Your task to perform on an android device: toggle pop-ups in chrome Image 0: 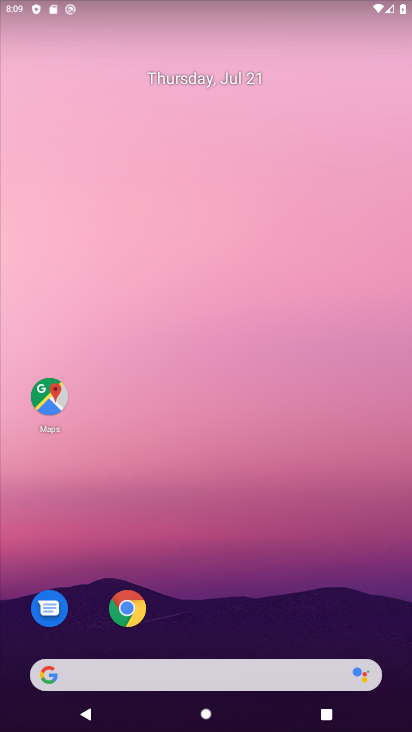
Step 0: drag from (89, 548) to (189, 178)
Your task to perform on an android device: toggle pop-ups in chrome Image 1: 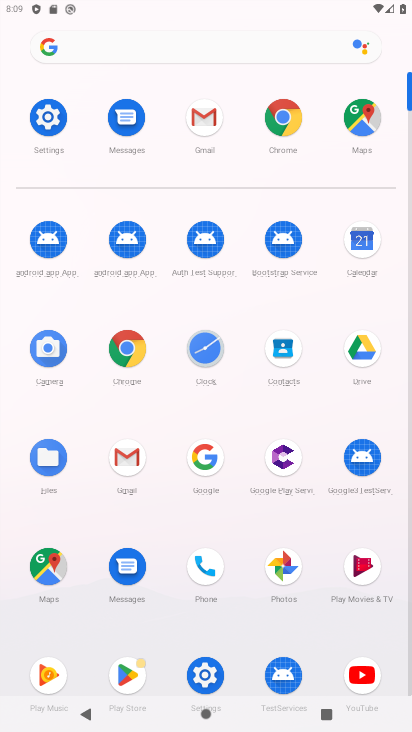
Step 1: click (123, 346)
Your task to perform on an android device: toggle pop-ups in chrome Image 2: 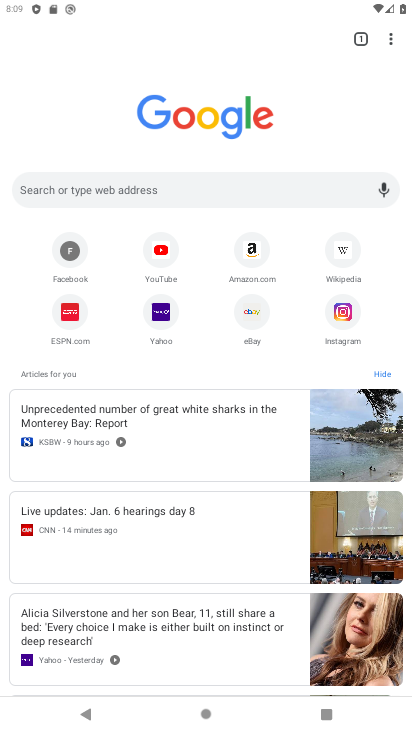
Step 2: click (388, 33)
Your task to perform on an android device: toggle pop-ups in chrome Image 3: 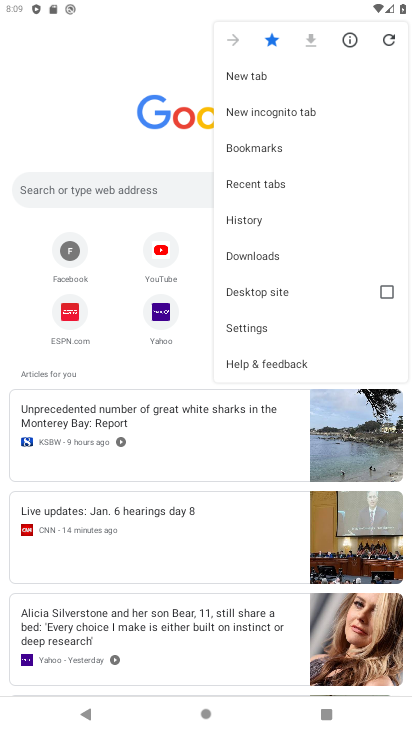
Step 3: click (251, 330)
Your task to perform on an android device: toggle pop-ups in chrome Image 4: 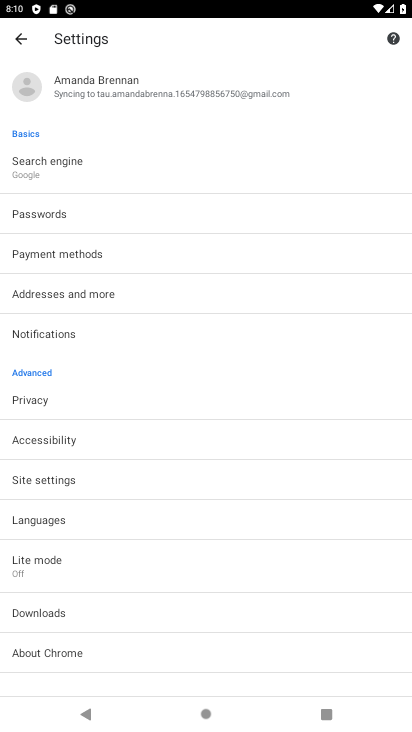
Step 4: click (67, 483)
Your task to perform on an android device: toggle pop-ups in chrome Image 5: 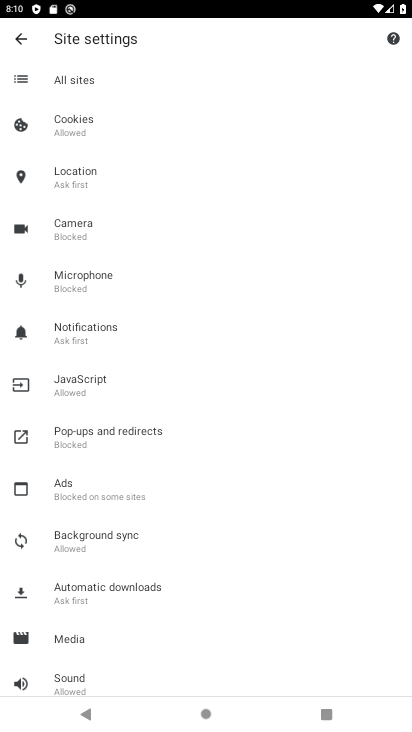
Step 5: click (111, 446)
Your task to perform on an android device: toggle pop-ups in chrome Image 6: 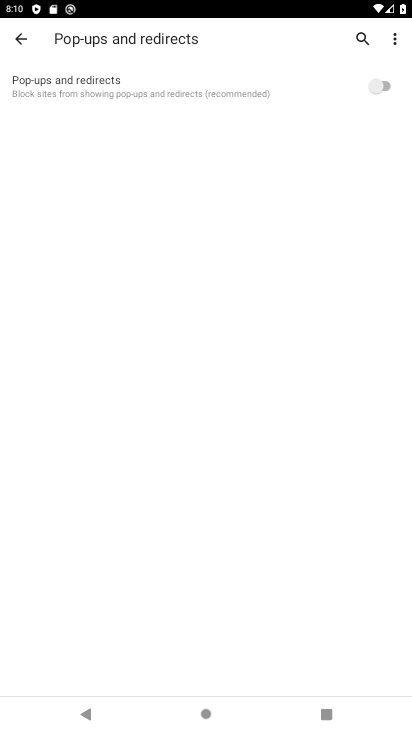
Step 6: click (383, 78)
Your task to perform on an android device: toggle pop-ups in chrome Image 7: 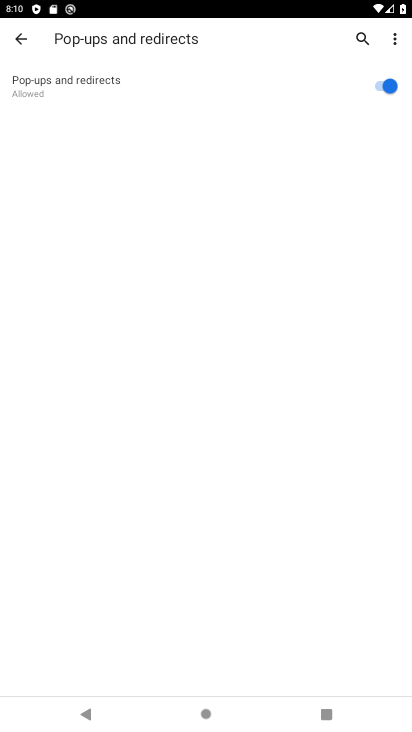
Step 7: task complete